Your task to perform on an android device: When is my next meeting? Image 0: 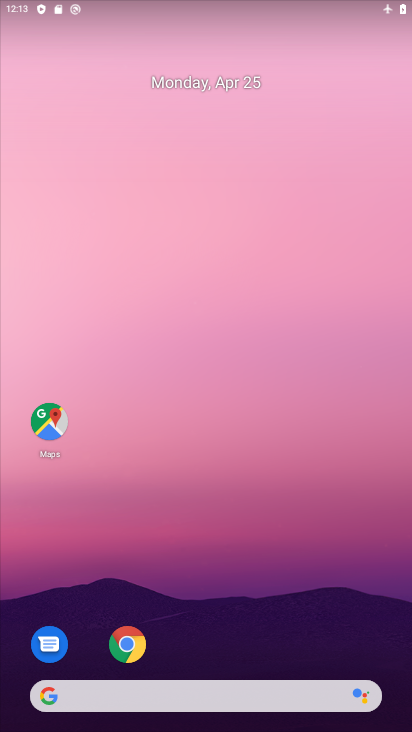
Step 0: drag from (233, 628) to (234, 175)
Your task to perform on an android device: When is my next meeting? Image 1: 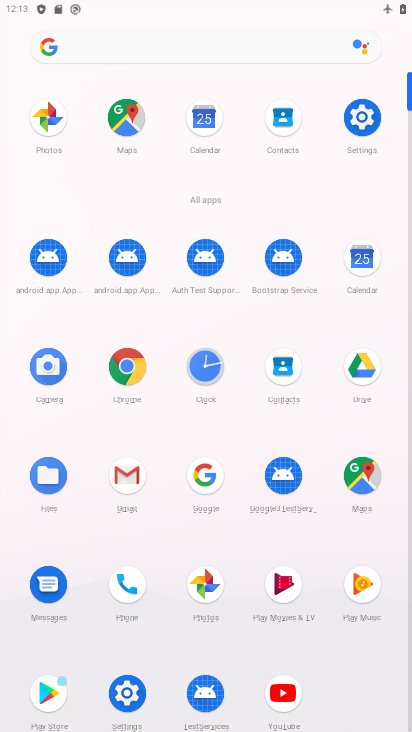
Step 1: click (374, 273)
Your task to perform on an android device: When is my next meeting? Image 2: 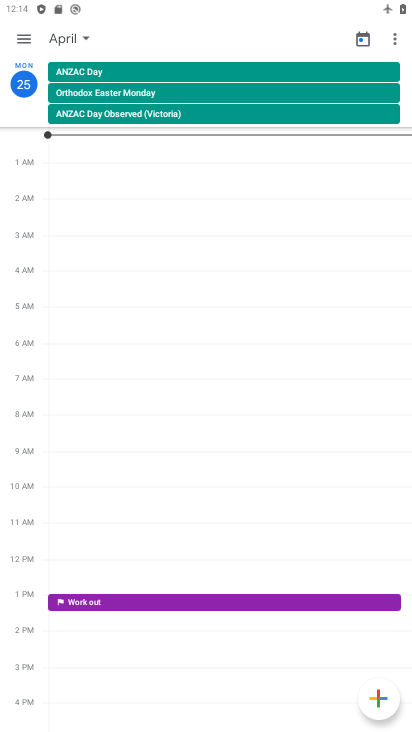
Step 2: task complete